Your task to perform on an android device: Search for Italian restaurants on Maps Image 0: 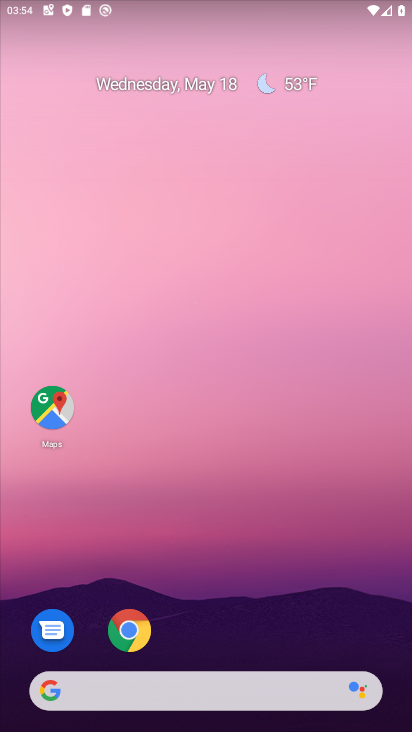
Step 0: drag from (167, 727) to (237, 296)
Your task to perform on an android device: Search for Italian restaurants on Maps Image 1: 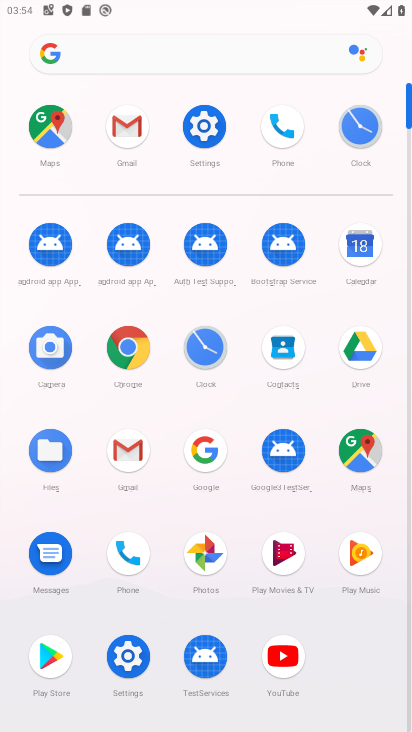
Step 1: click (358, 454)
Your task to perform on an android device: Search for Italian restaurants on Maps Image 2: 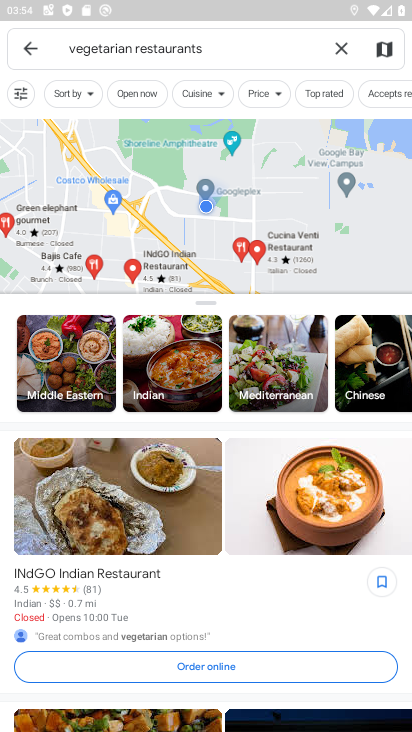
Step 2: click (338, 46)
Your task to perform on an android device: Search for Italian restaurants on Maps Image 3: 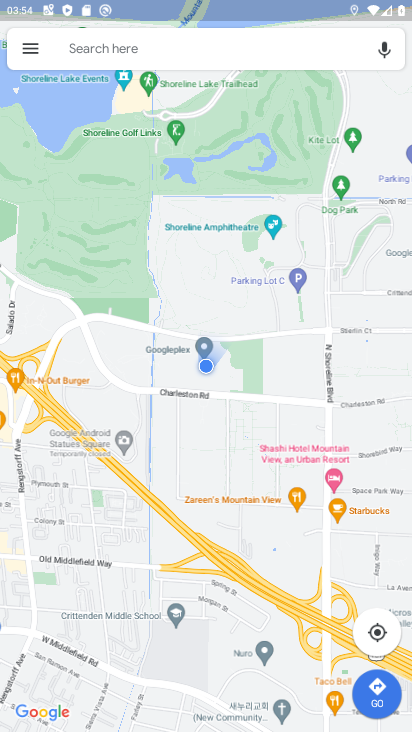
Step 3: click (215, 51)
Your task to perform on an android device: Search for Italian restaurants on Maps Image 4: 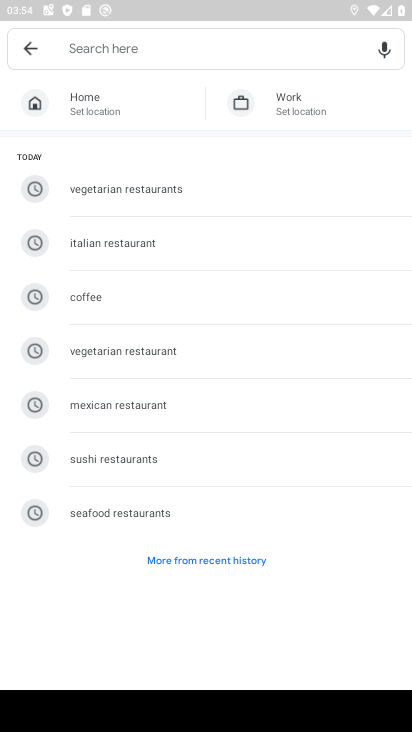
Step 4: type "italian restaurants"
Your task to perform on an android device: Search for Italian restaurants on Maps Image 5: 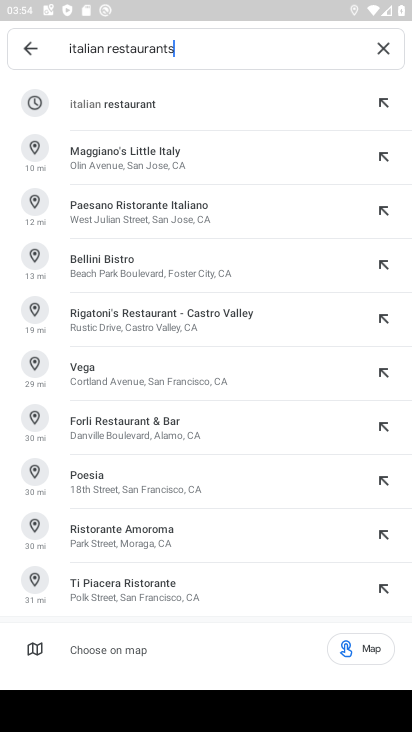
Step 5: click (106, 102)
Your task to perform on an android device: Search for Italian restaurants on Maps Image 6: 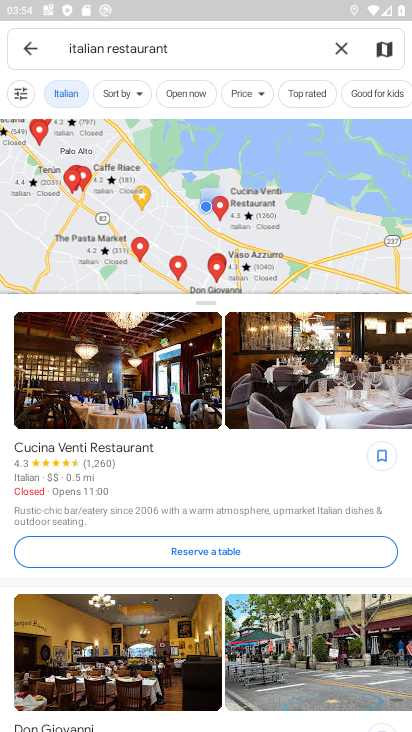
Step 6: task complete